Your task to perform on an android device: What's the weather today? Image 0: 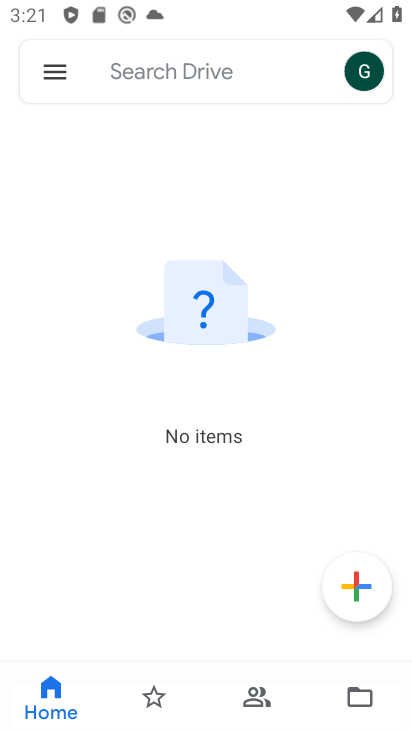
Step 0: press home button
Your task to perform on an android device: What's the weather today? Image 1: 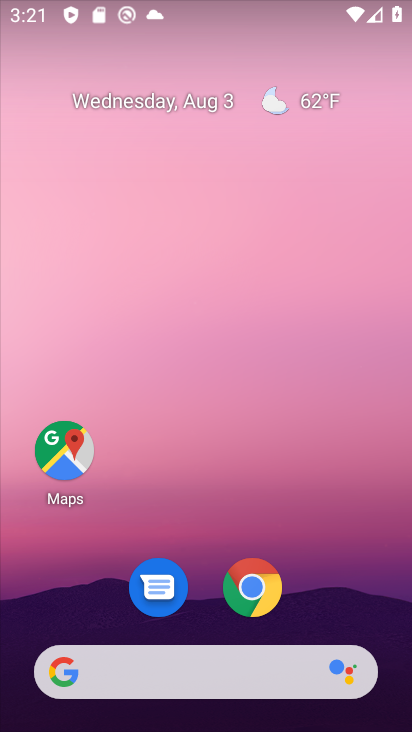
Step 1: click (97, 669)
Your task to perform on an android device: What's the weather today? Image 2: 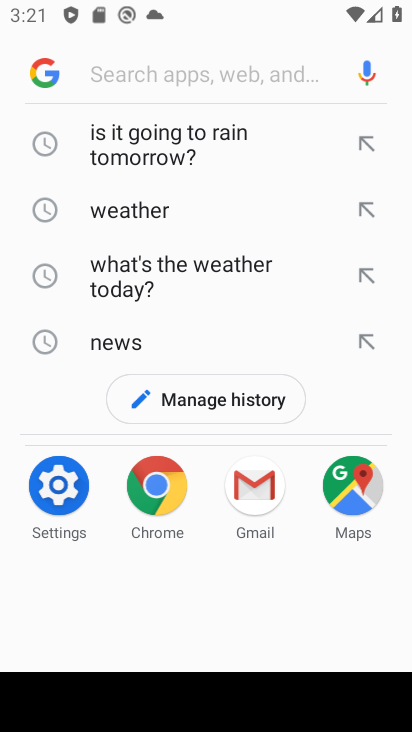
Step 2: type "What's the weather today?"
Your task to perform on an android device: What's the weather today? Image 3: 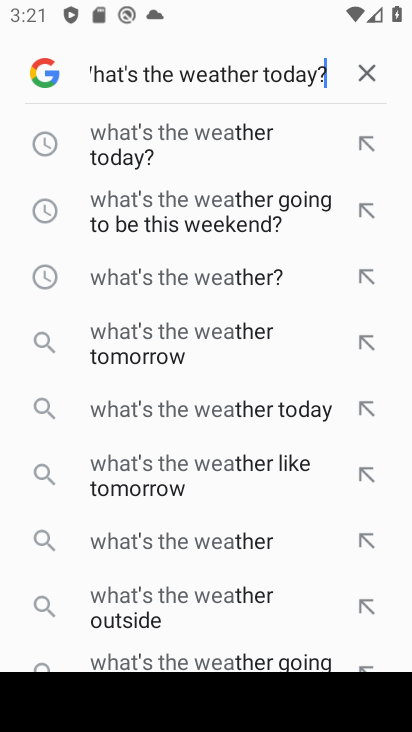
Step 3: type ""
Your task to perform on an android device: What's the weather today? Image 4: 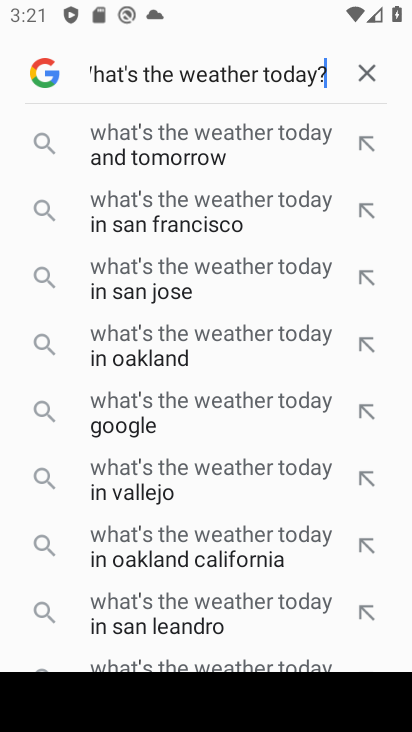
Step 4: type ""
Your task to perform on an android device: What's the weather today? Image 5: 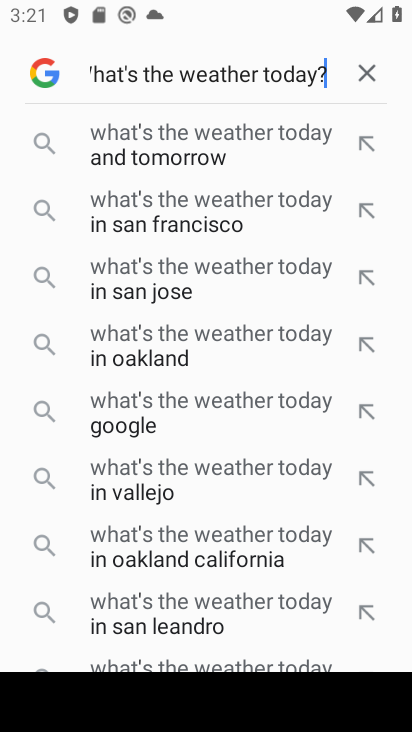
Step 5: task complete